Your task to perform on an android device: turn off javascript in the chrome app Image 0: 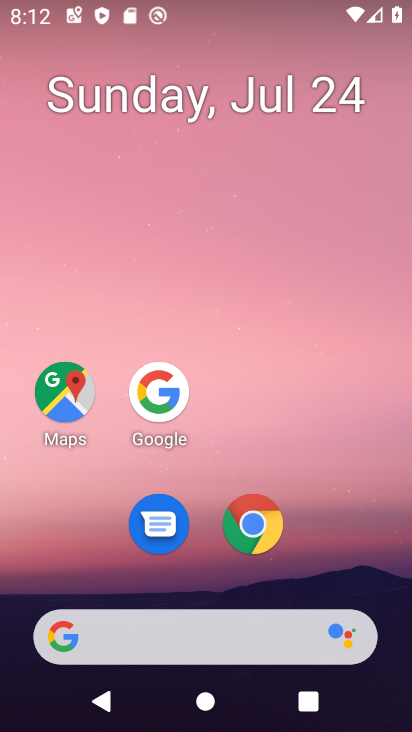
Step 0: press home button
Your task to perform on an android device: turn off javascript in the chrome app Image 1: 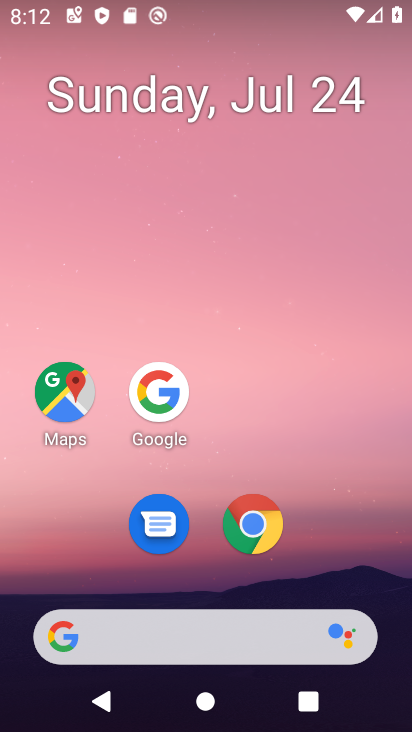
Step 1: click (243, 539)
Your task to perform on an android device: turn off javascript in the chrome app Image 2: 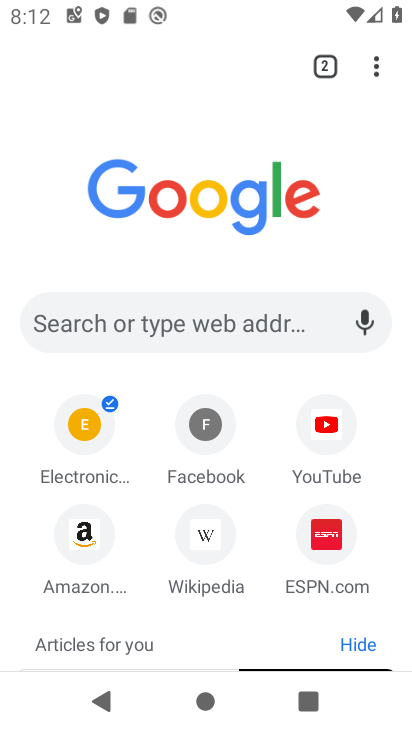
Step 2: drag from (374, 71) to (246, 563)
Your task to perform on an android device: turn off javascript in the chrome app Image 3: 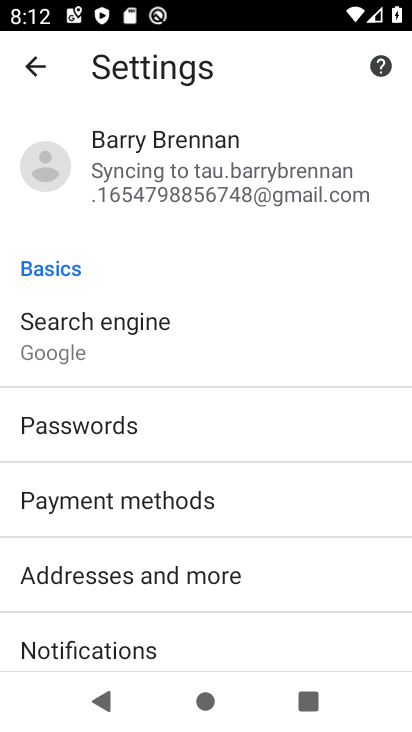
Step 3: drag from (222, 637) to (280, 143)
Your task to perform on an android device: turn off javascript in the chrome app Image 4: 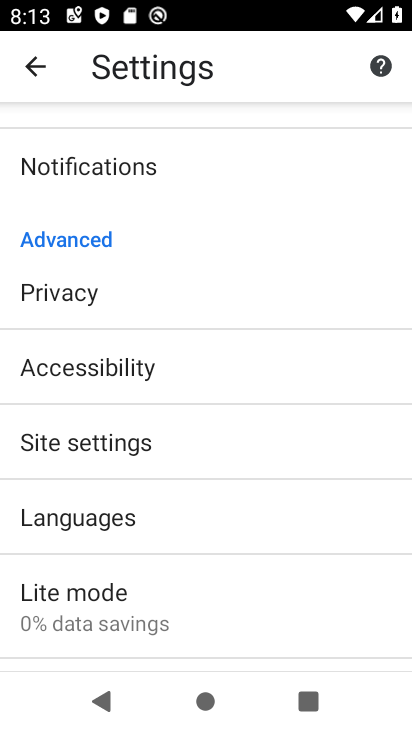
Step 4: click (125, 442)
Your task to perform on an android device: turn off javascript in the chrome app Image 5: 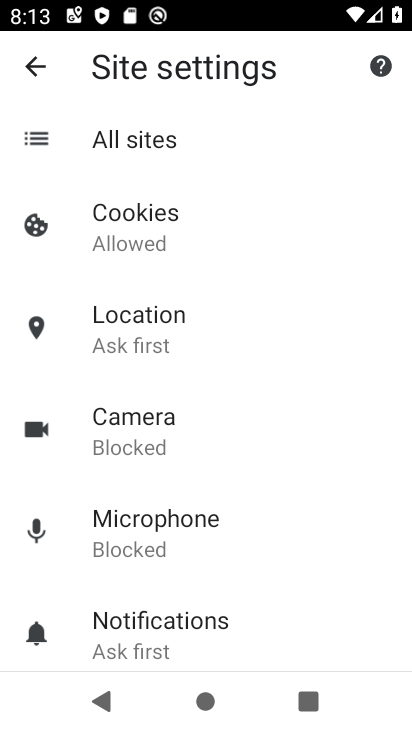
Step 5: drag from (279, 611) to (326, 262)
Your task to perform on an android device: turn off javascript in the chrome app Image 6: 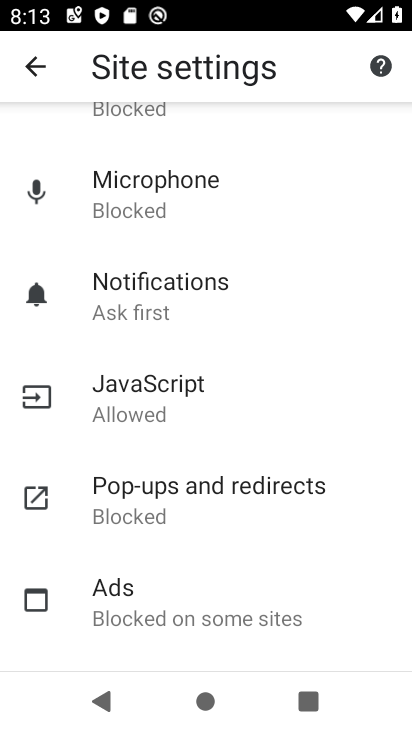
Step 6: click (190, 394)
Your task to perform on an android device: turn off javascript in the chrome app Image 7: 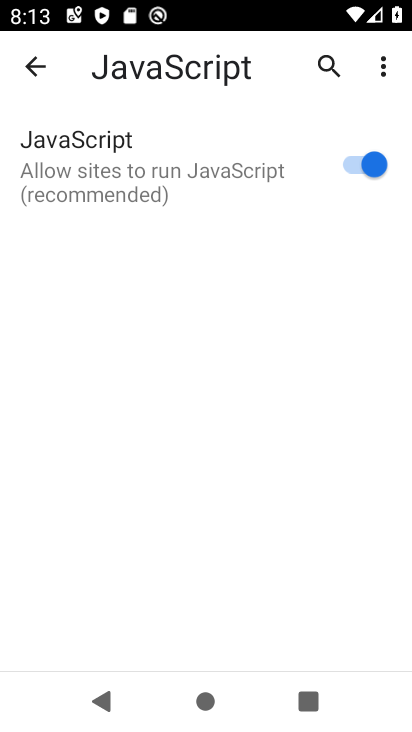
Step 7: click (352, 158)
Your task to perform on an android device: turn off javascript in the chrome app Image 8: 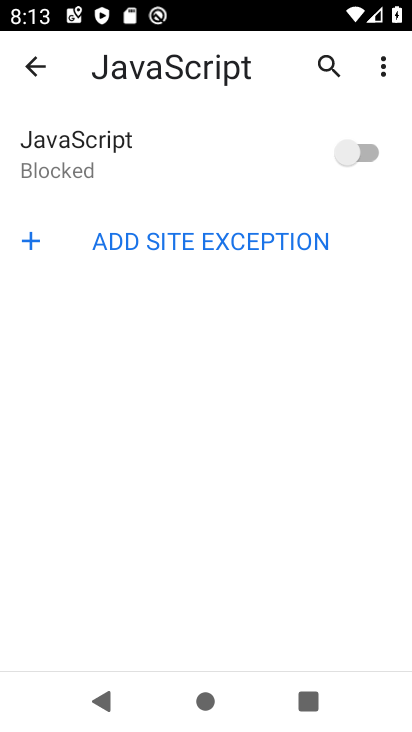
Step 8: task complete